Your task to perform on an android device: Go to privacy settings Image 0: 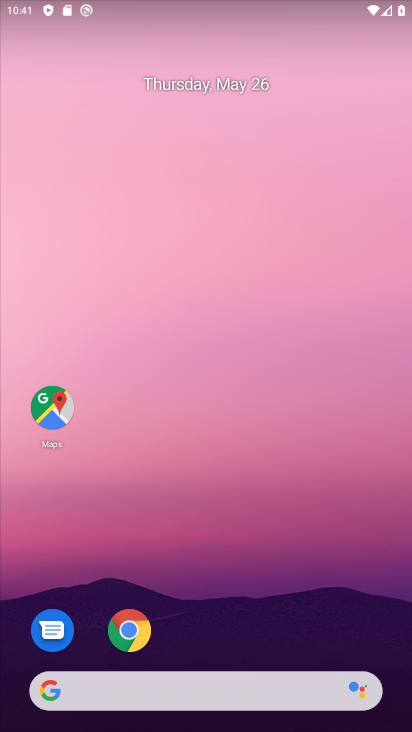
Step 0: drag from (267, 583) to (304, 135)
Your task to perform on an android device: Go to privacy settings Image 1: 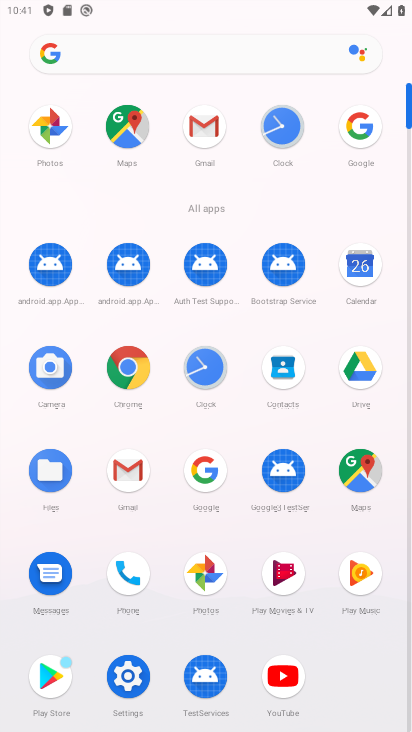
Step 1: click (127, 675)
Your task to perform on an android device: Go to privacy settings Image 2: 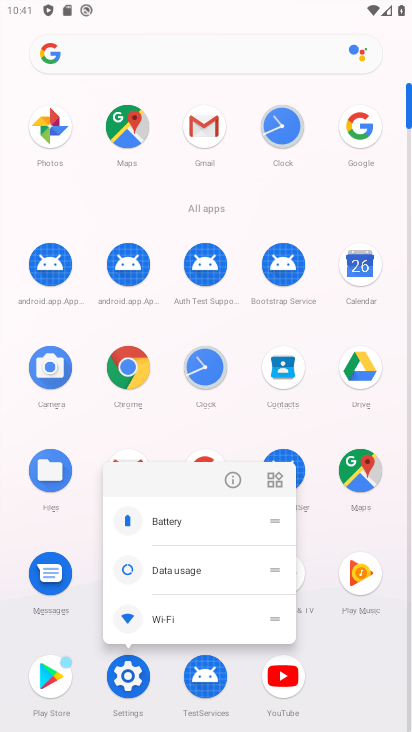
Step 2: click (127, 675)
Your task to perform on an android device: Go to privacy settings Image 3: 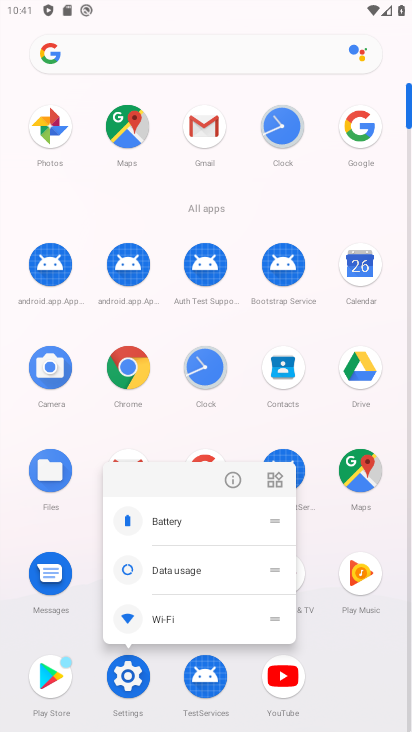
Step 3: click (127, 675)
Your task to perform on an android device: Go to privacy settings Image 4: 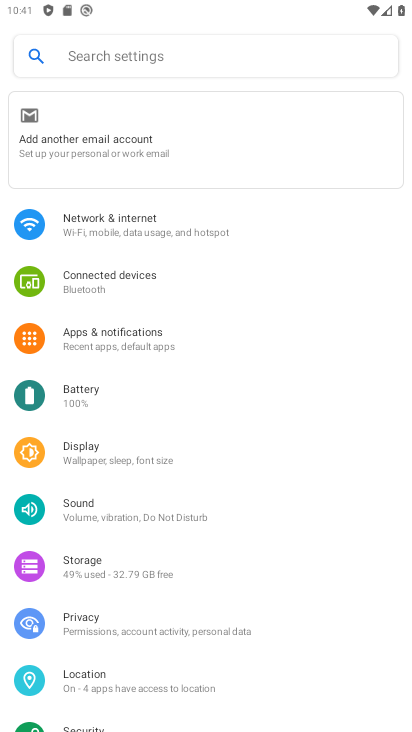
Step 4: click (135, 619)
Your task to perform on an android device: Go to privacy settings Image 5: 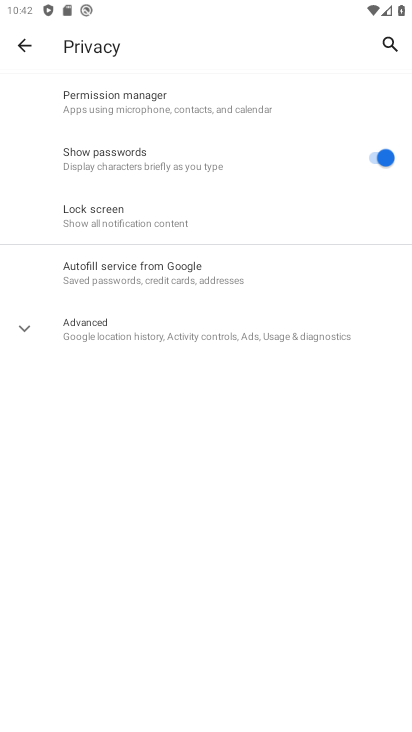
Step 5: task complete